Your task to perform on an android device: What's on my calendar today? Image 0: 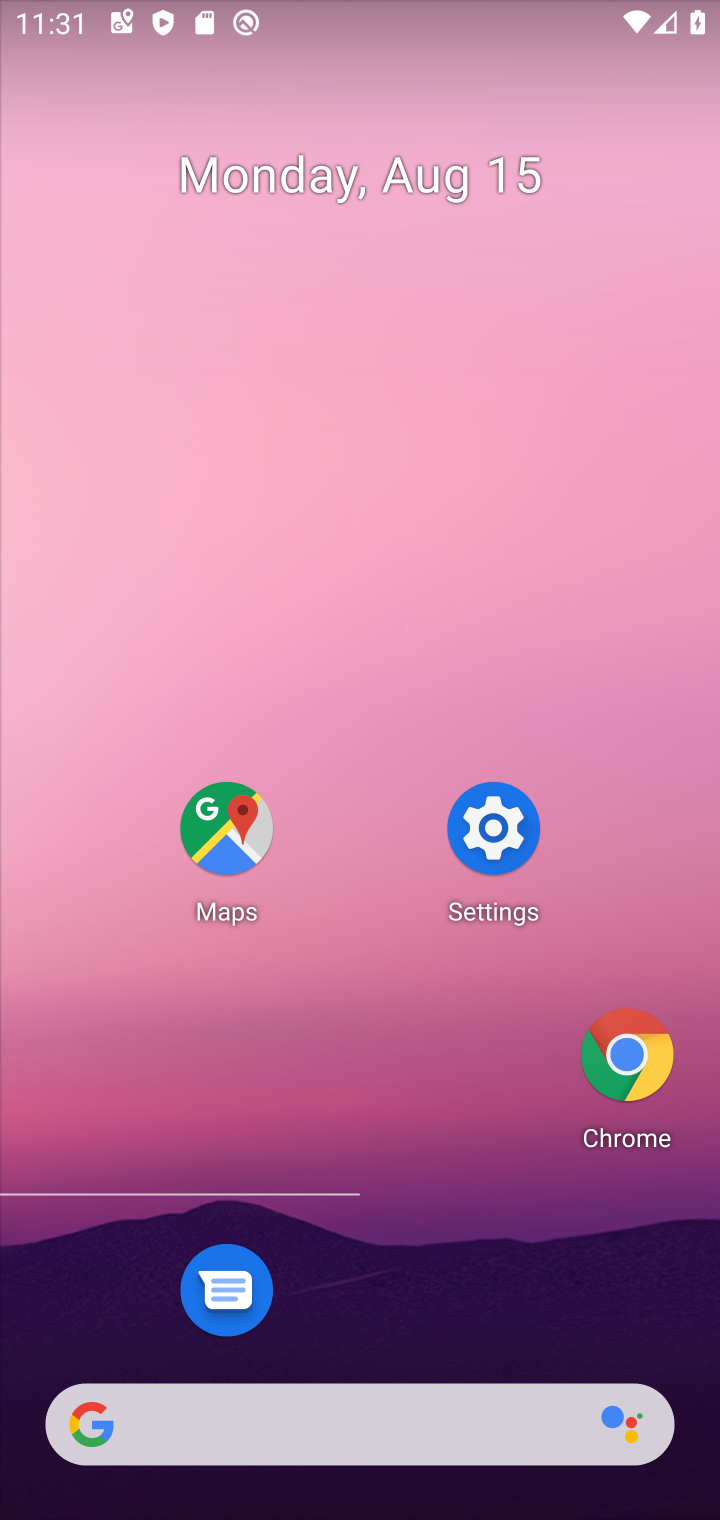
Step 0: drag from (426, 744) to (497, 68)
Your task to perform on an android device: What's on my calendar today? Image 1: 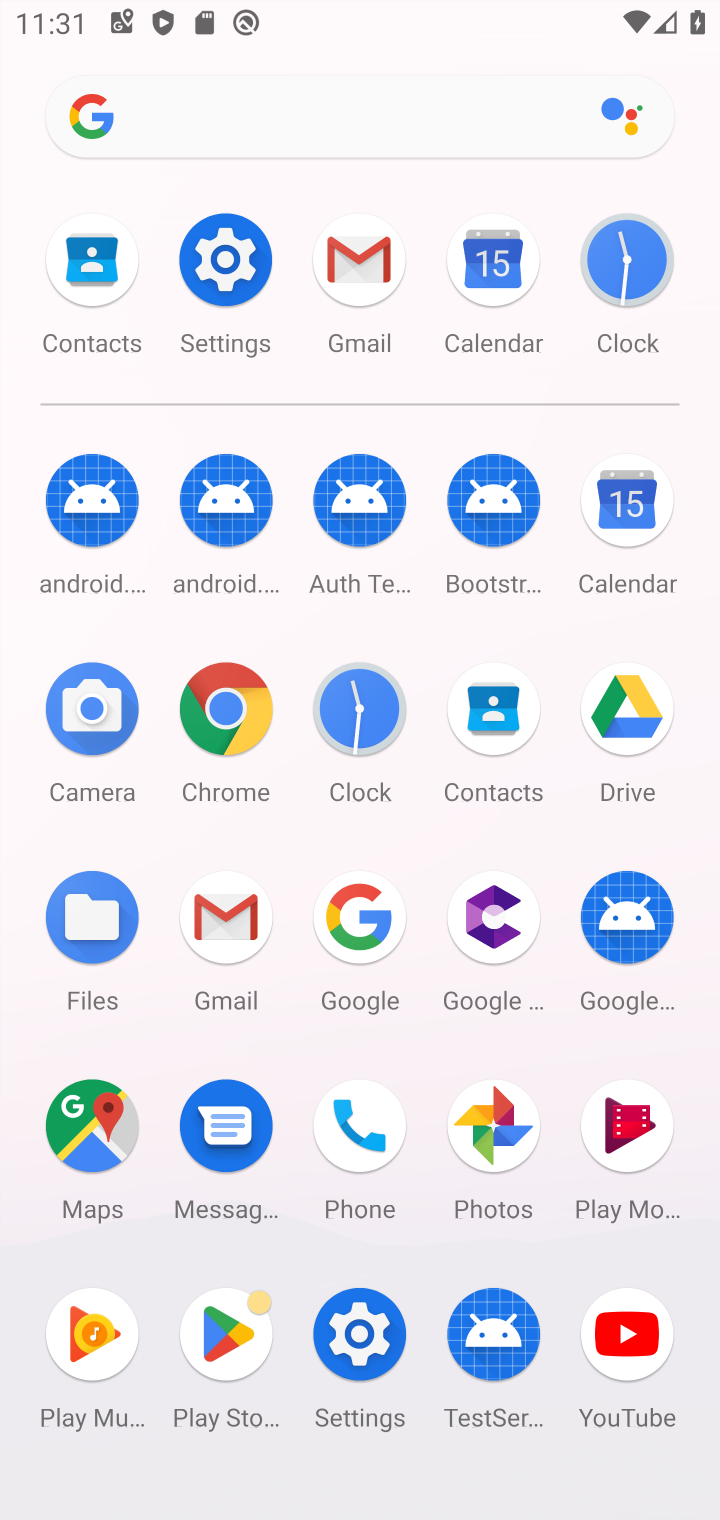
Step 1: click (612, 525)
Your task to perform on an android device: What's on my calendar today? Image 2: 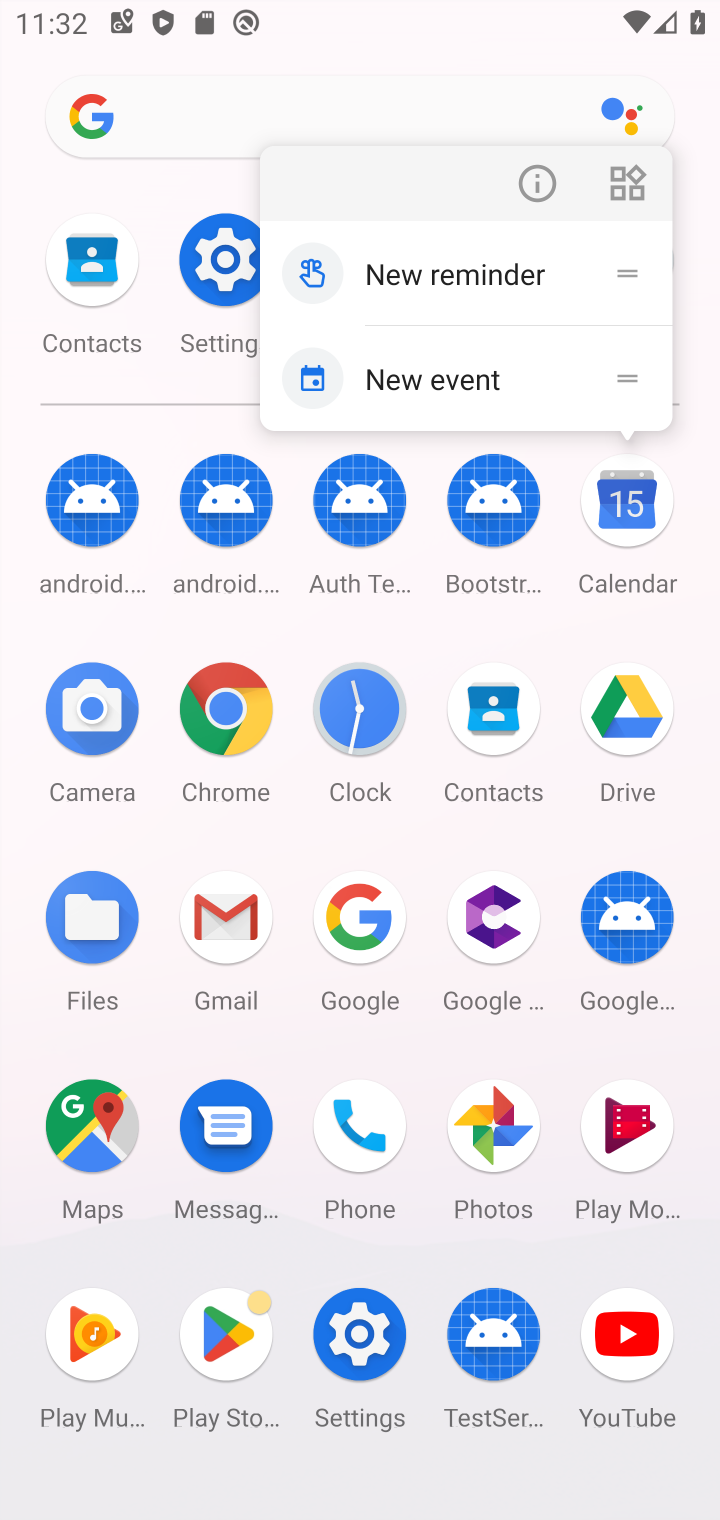
Step 2: click (630, 500)
Your task to perform on an android device: What's on my calendar today? Image 3: 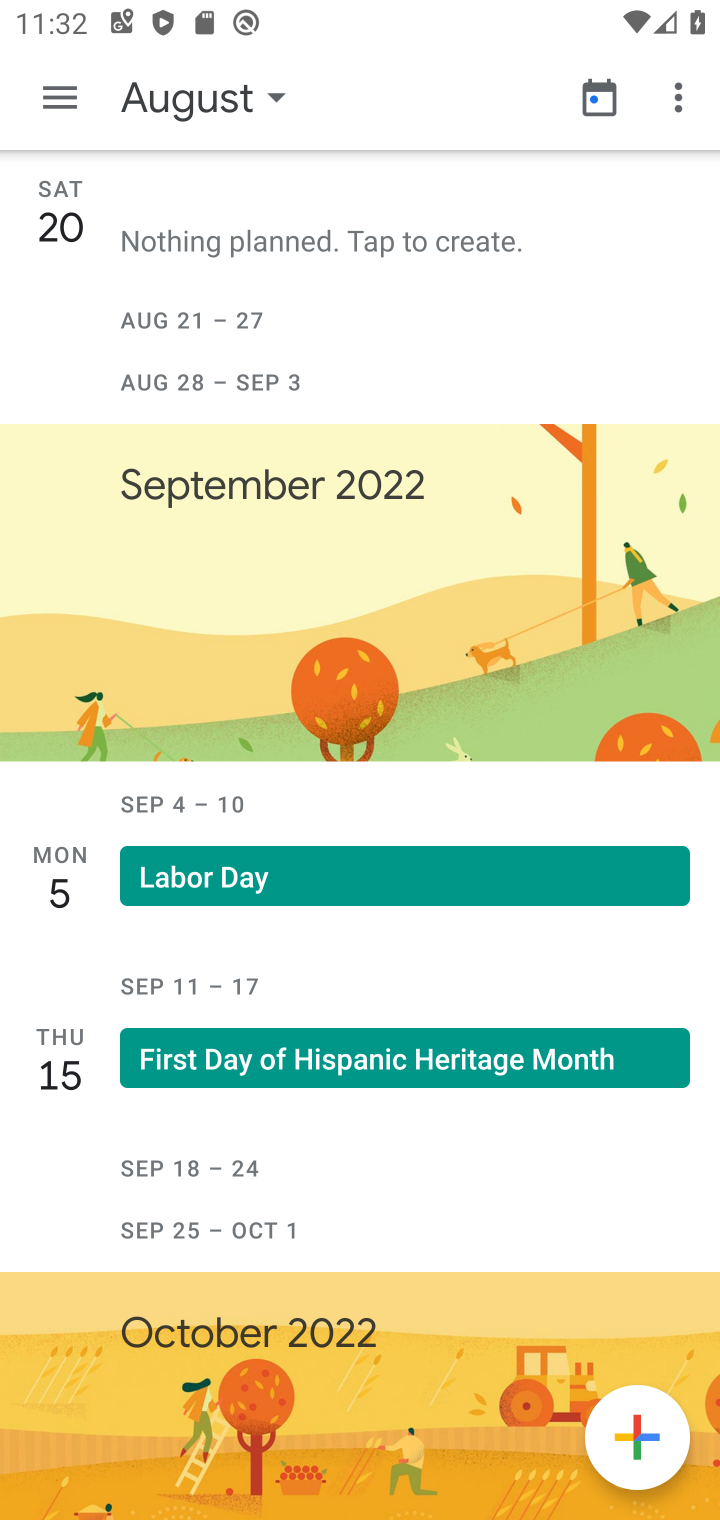
Step 3: click (202, 87)
Your task to perform on an android device: What's on my calendar today? Image 4: 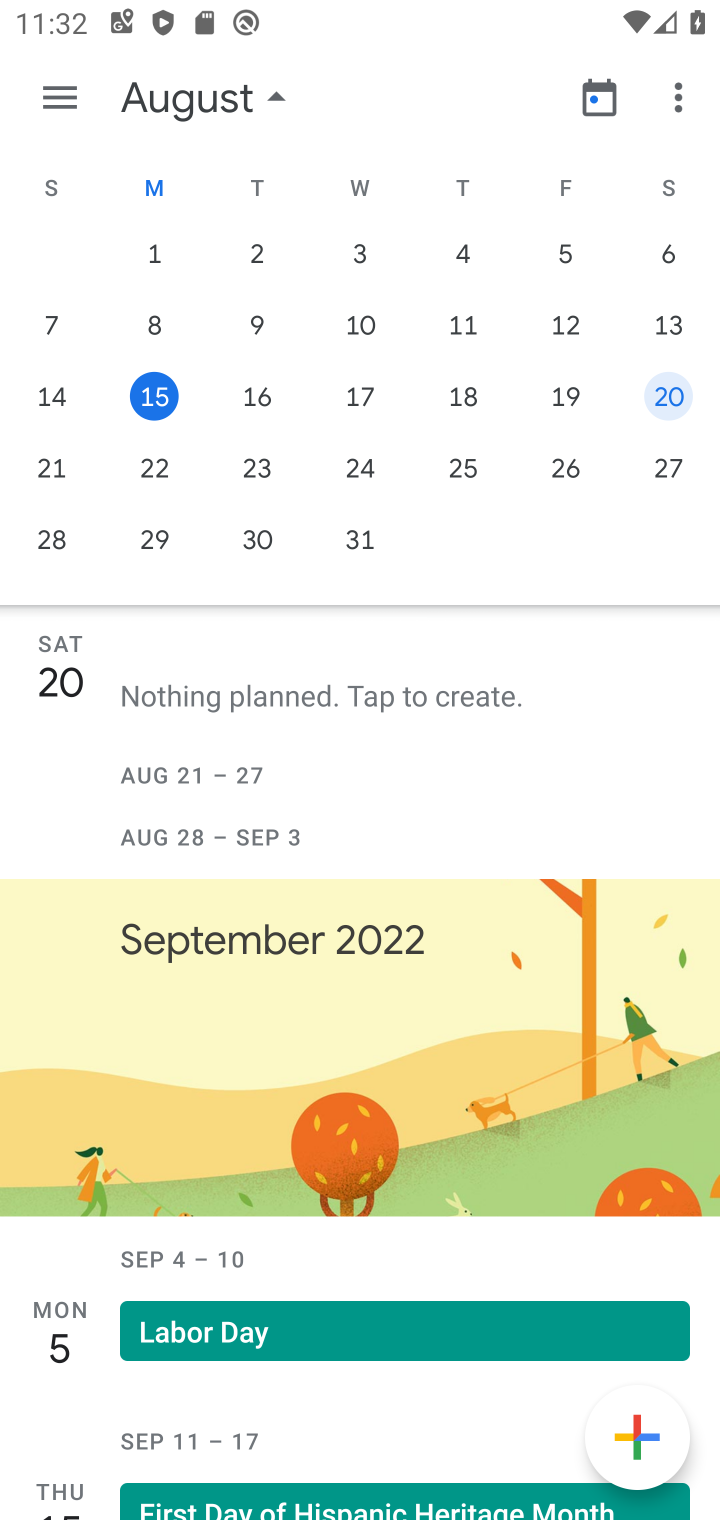
Step 4: click (168, 383)
Your task to perform on an android device: What's on my calendar today? Image 5: 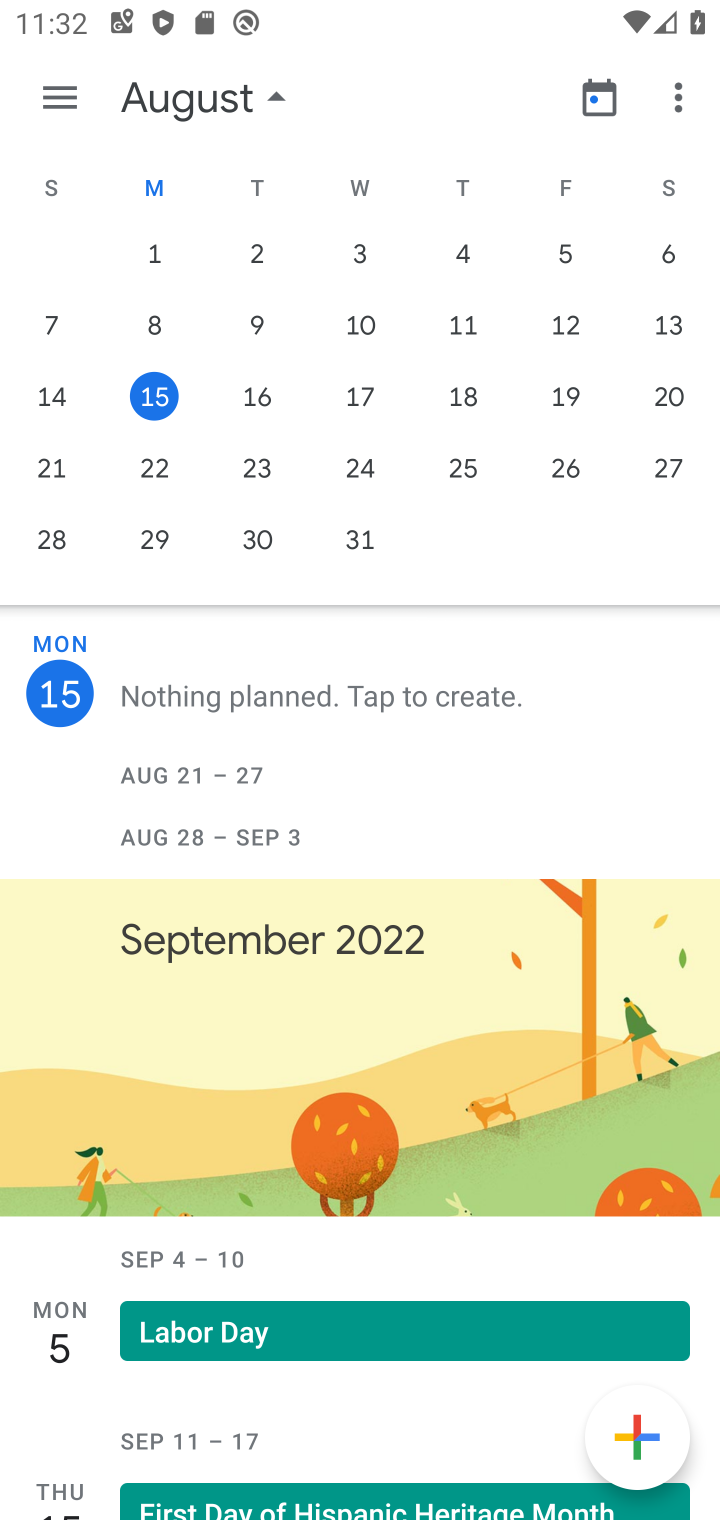
Step 5: click (68, 82)
Your task to perform on an android device: What's on my calendar today? Image 6: 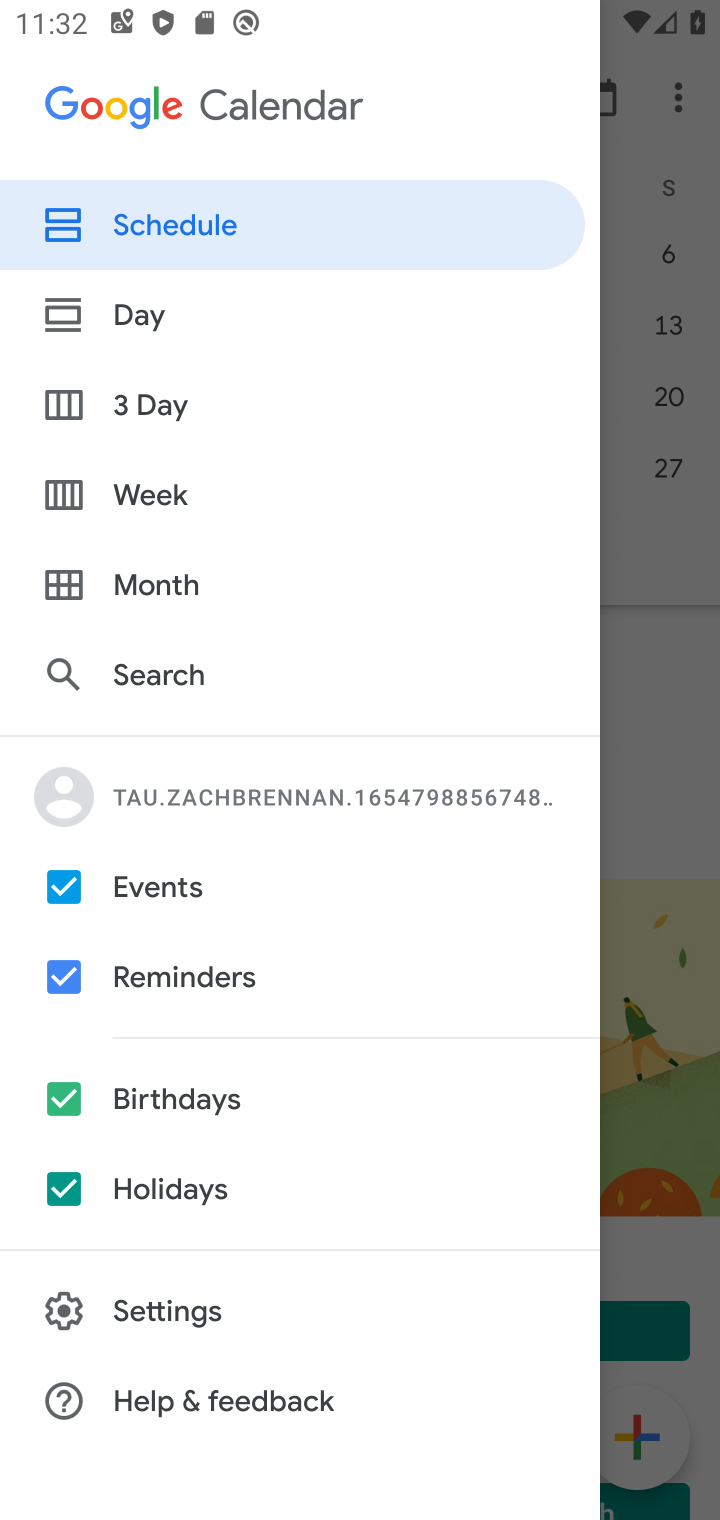
Step 6: click (153, 234)
Your task to perform on an android device: What's on my calendar today? Image 7: 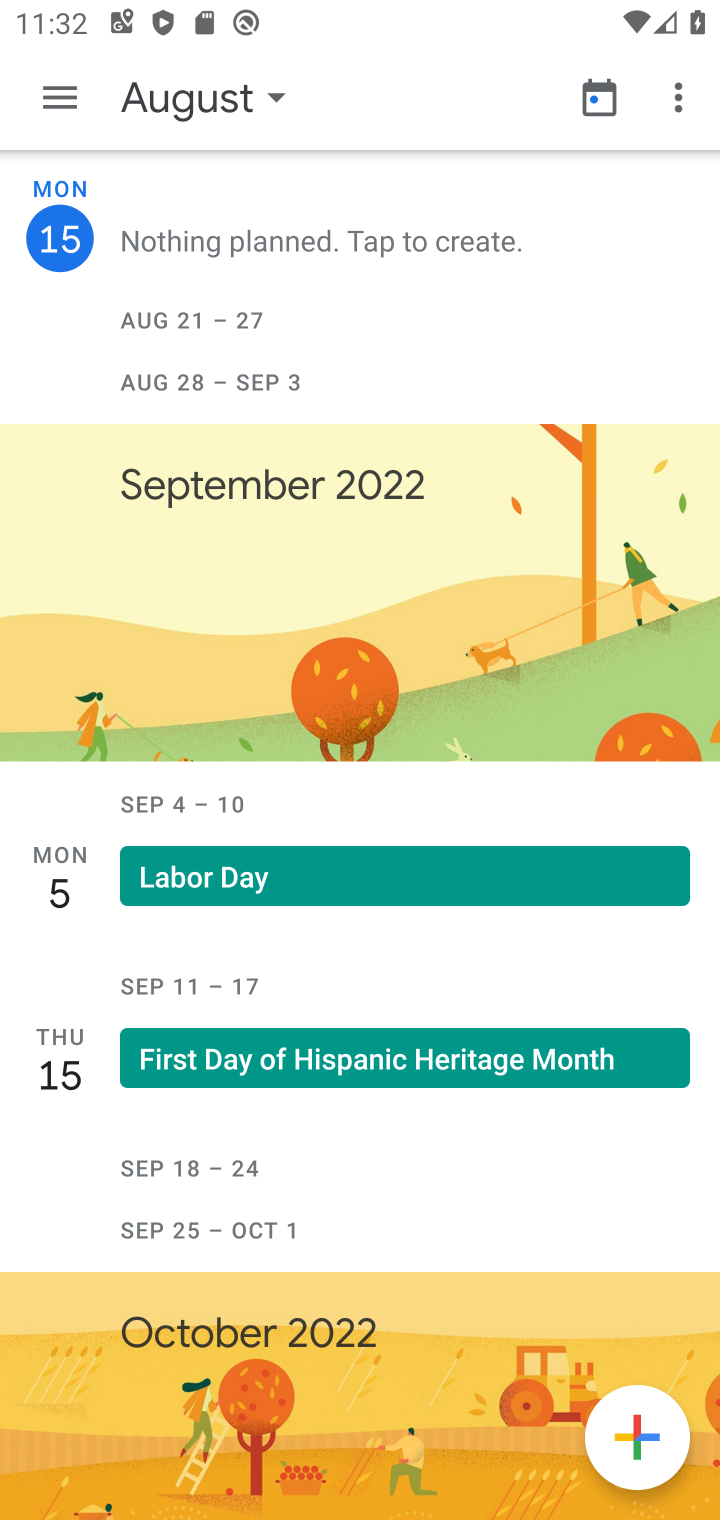
Step 7: task complete